Your task to perform on an android device: What's on my calendar tomorrow? Image 0: 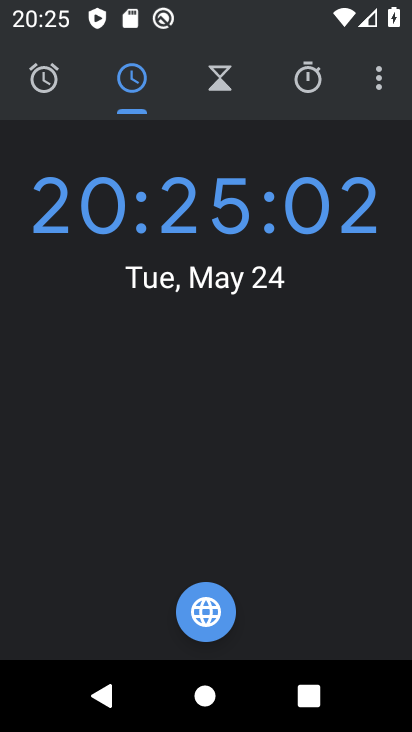
Step 0: press home button
Your task to perform on an android device: What's on my calendar tomorrow? Image 1: 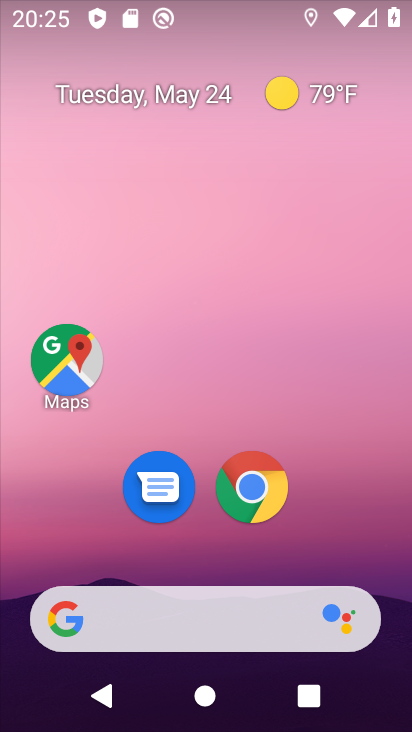
Step 1: drag from (251, 560) to (232, 117)
Your task to perform on an android device: What's on my calendar tomorrow? Image 2: 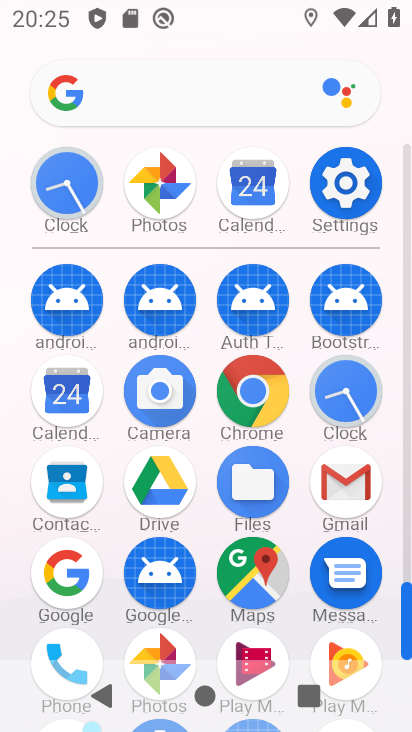
Step 2: click (241, 186)
Your task to perform on an android device: What's on my calendar tomorrow? Image 3: 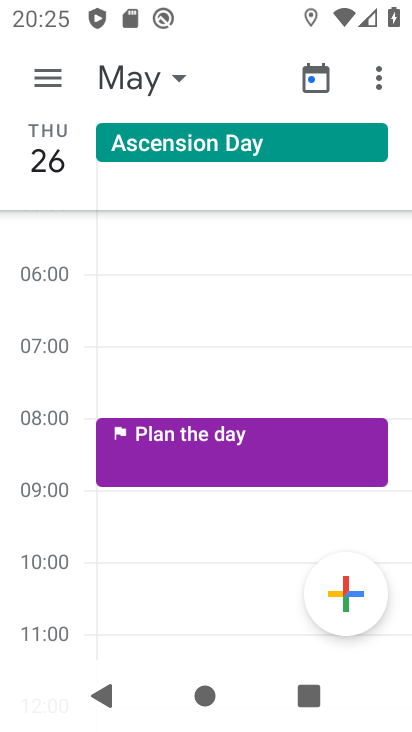
Step 3: drag from (206, 199) to (164, 372)
Your task to perform on an android device: What's on my calendar tomorrow? Image 4: 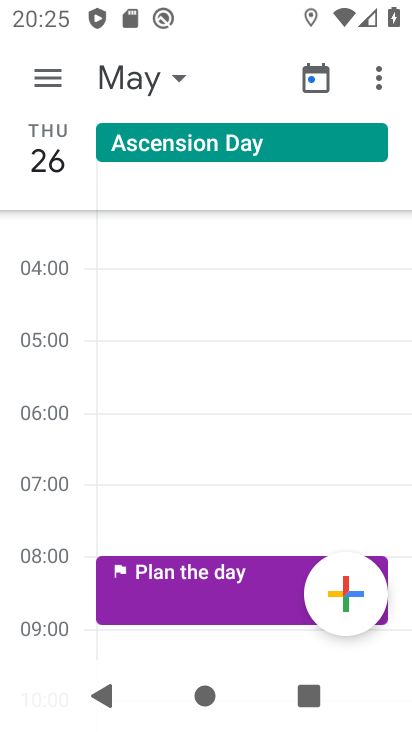
Step 4: drag from (120, 174) to (106, 241)
Your task to perform on an android device: What's on my calendar tomorrow? Image 5: 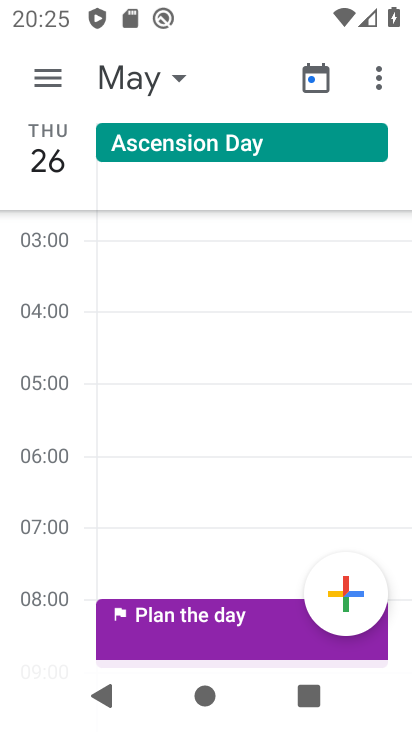
Step 5: click (160, 79)
Your task to perform on an android device: What's on my calendar tomorrow? Image 6: 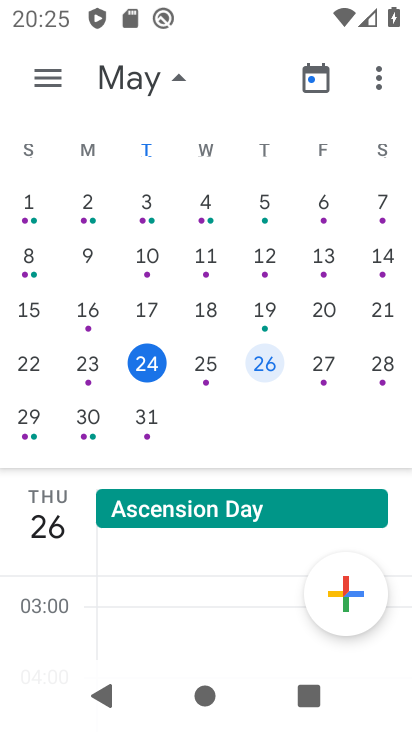
Step 6: click (272, 366)
Your task to perform on an android device: What's on my calendar tomorrow? Image 7: 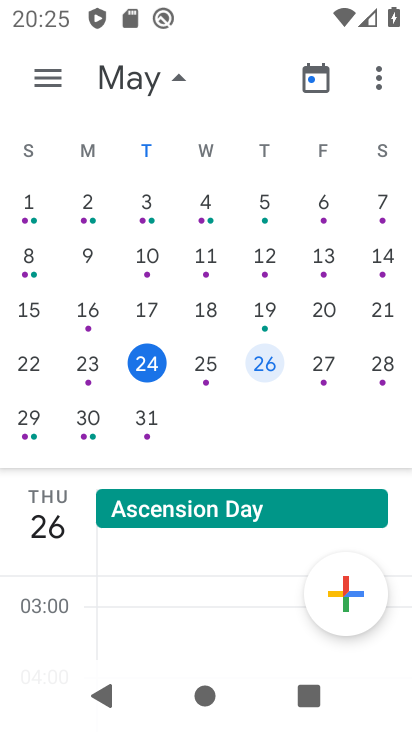
Step 7: task complete